Your task to perform on an android device: turn on the 12-hour format for clock Image 0: 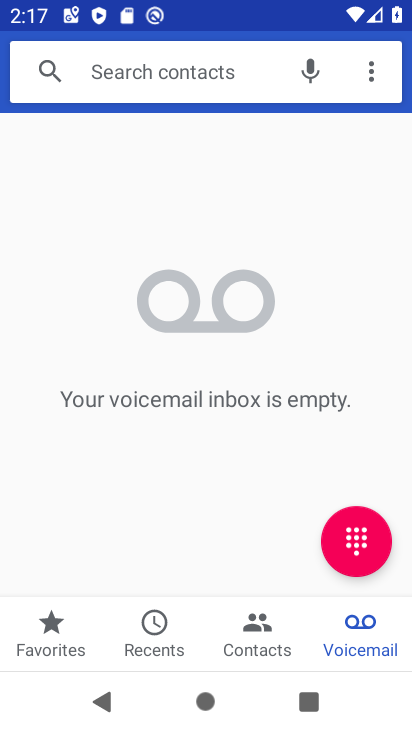
Step 0: press home button
Your task to perform on an android device: turn on the 12-hour format for clock Image 1: 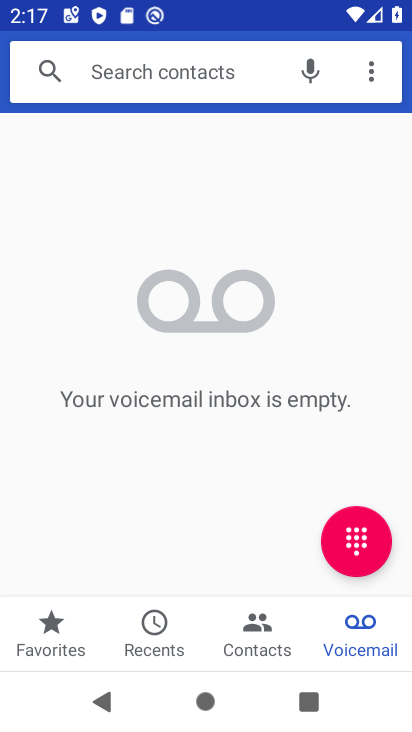
Step 1: press home button
Your task to perform on an android device: turn on the 12-hour format for clock Image 2: 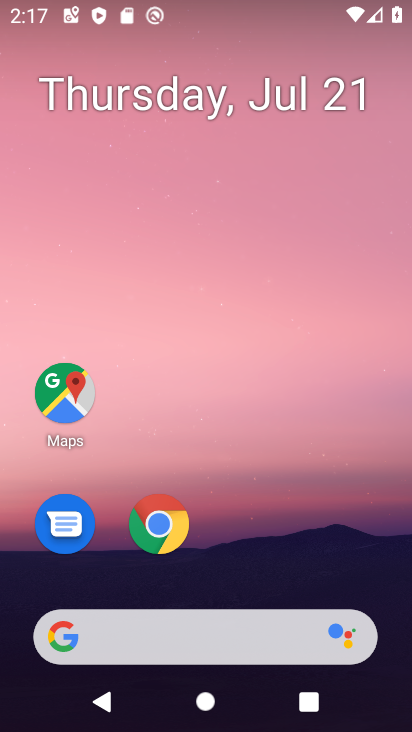
Step 2: drag from (219, 480) to (236, 21)
Your task to perform on an android device: turn on the 12-hour format for clock Image 3: 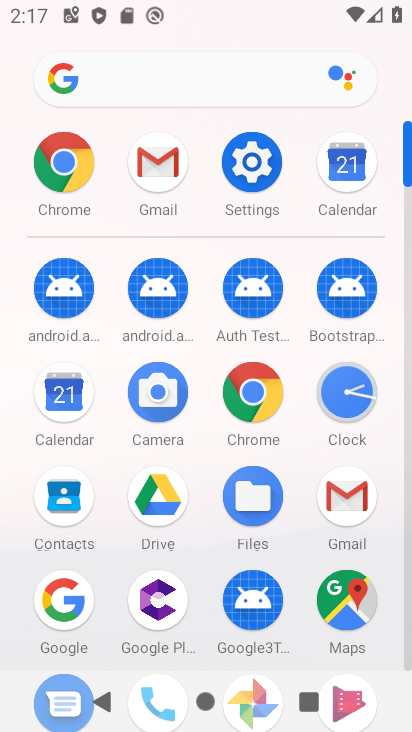
Step 3: click (344, 395)
Your task to perform on an android device: turn on the 12-hour format for clock Image 4: 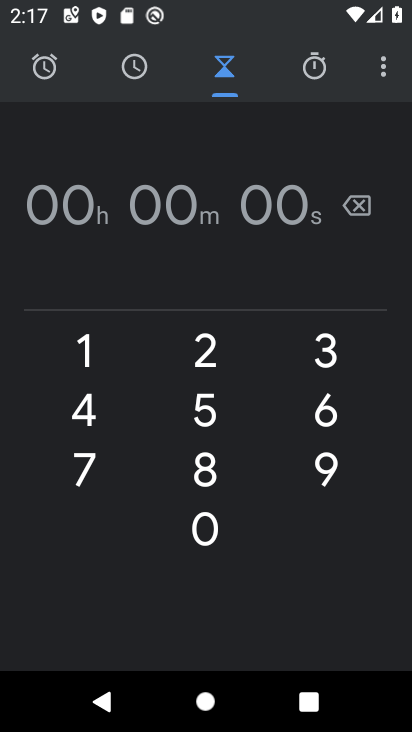
Step 4: click (380, 69)
Your task to perform on an android device: turn on the 12-hour format for clock Image 5: 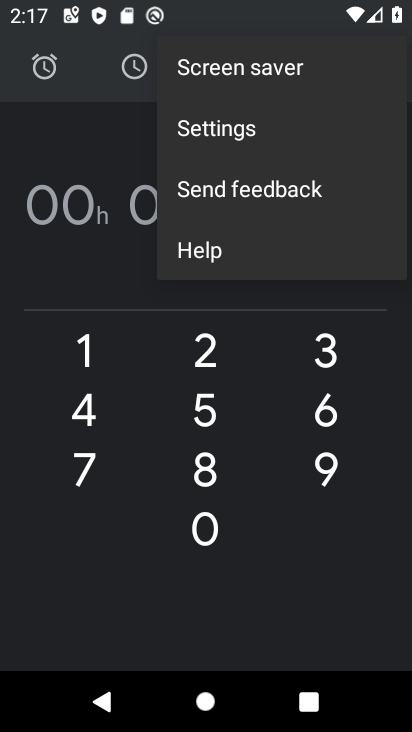
Step 5: click (234, 131)
Your task to perform on an android device: turn on the 12-hour format for clock Image 6: 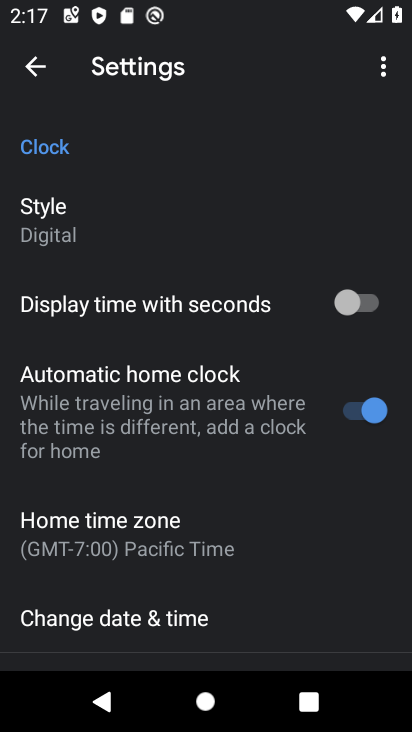
Step 6: click (235, 616)
Your task to perform on an android device: turn on the 12-hour format for clock Image 7: 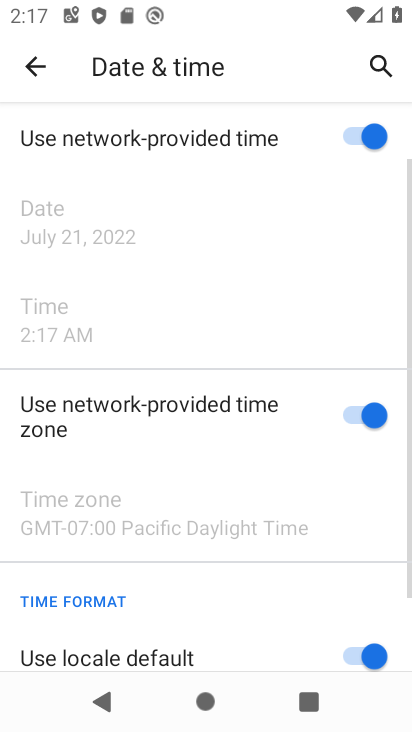
Step 7: task complete